Your task to perform on an android device: Open Chrome and go to settings Image 0: 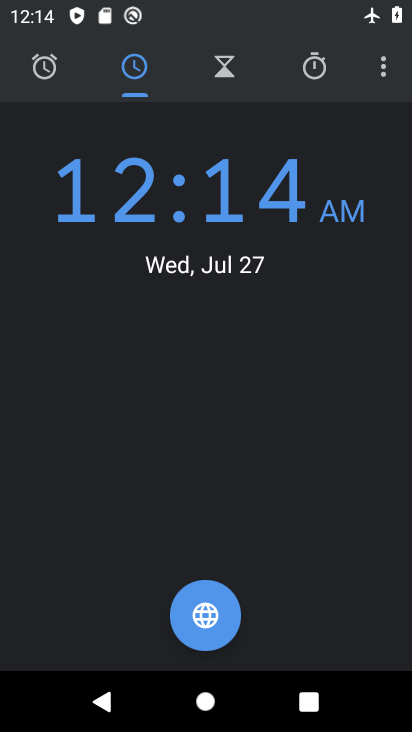
Step 0: press home button
Your task to perform on an android device: Open Chrome and go to settings Image 1: 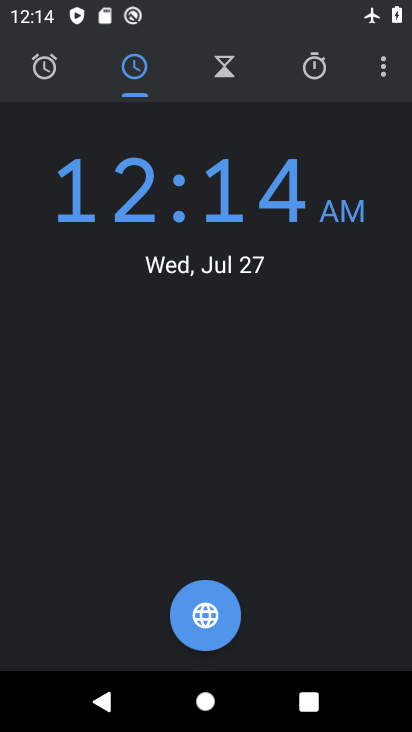
Step 1: press home button
Your task to perform on an android device: Open Chrome and go to settings Image 2: 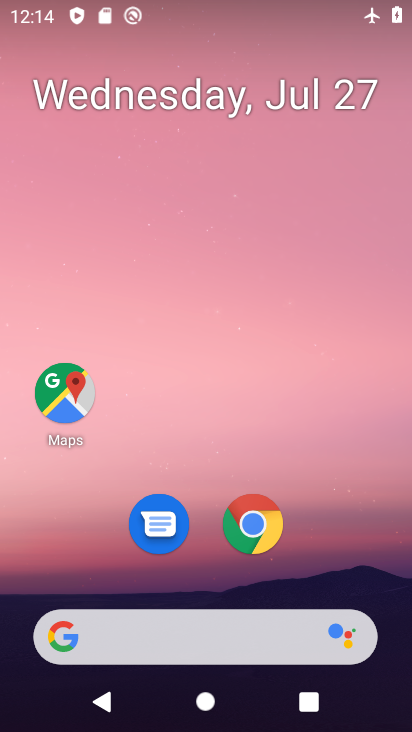
Step 2: click (257, 526)
Your task to perform on an android device: Open Chrome and go to settings Image 3: 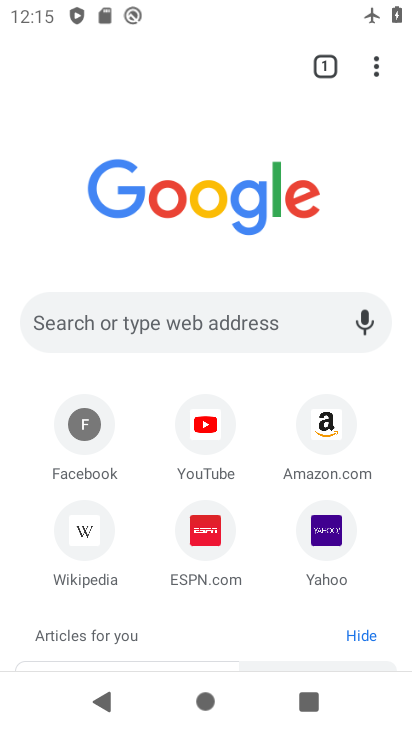
Step 3: click (373, 68)
Your task to perform on an android device: Open Chrome and go to settings Image 4: 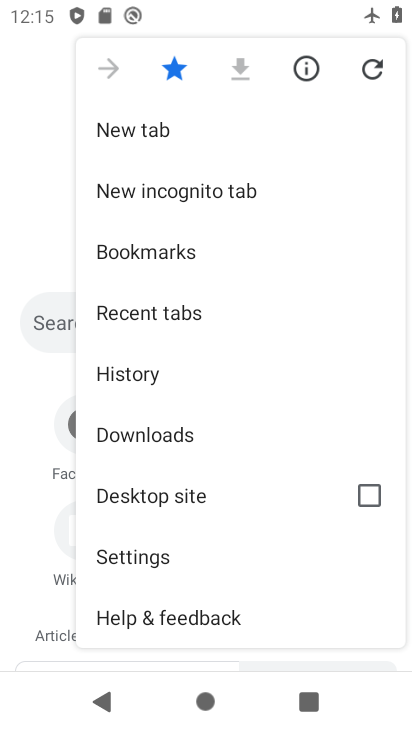
Step 4: click (144, 554)
Your task to perform on an android device: Open Chrome and go to settings Image 5: 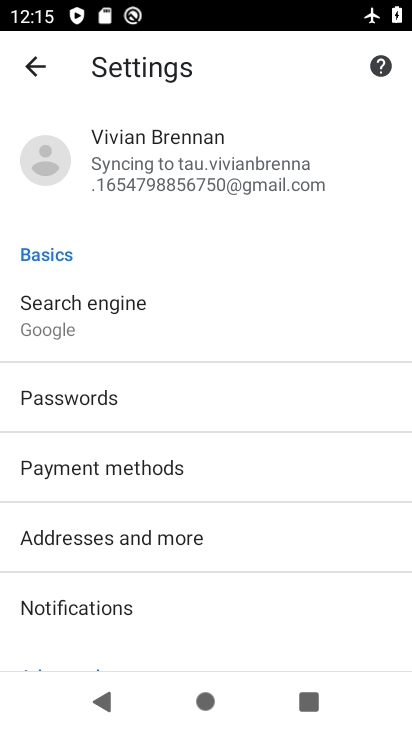
Step 5: task complete